Your task to perform on an android device: open chrome privacy settings Image 0: 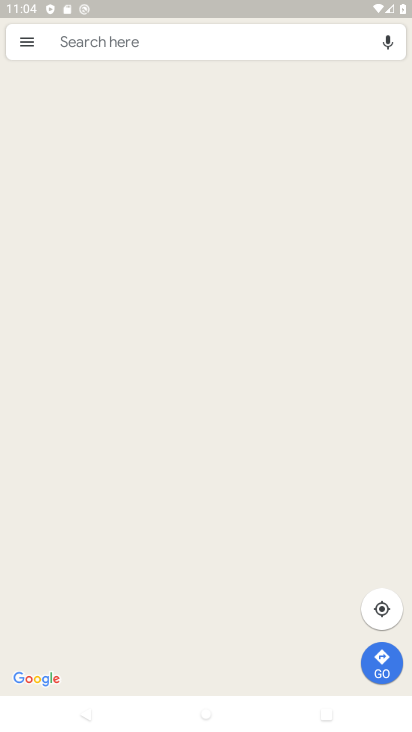
Step 0: press home button
Your task to perform on an android device: open chrome privacy settings Image 1: 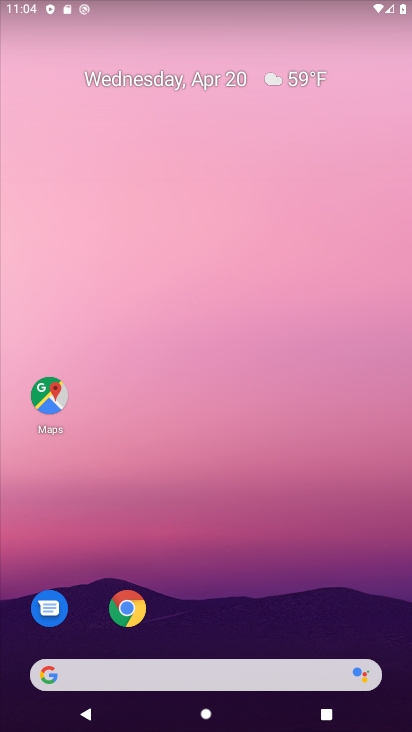
Step 1: click (128, 607)
Your task to perform on an android device: open chrome privacy settings Image 2: 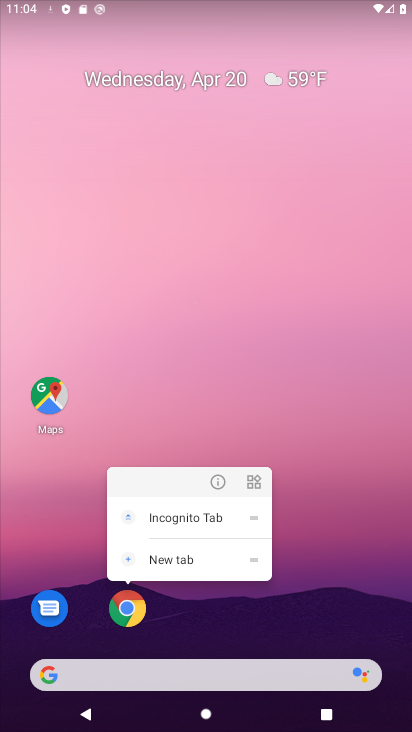
Step 2: click (128, 608)
Your task to perform on an android device: open chrome privacy settings Image 3: 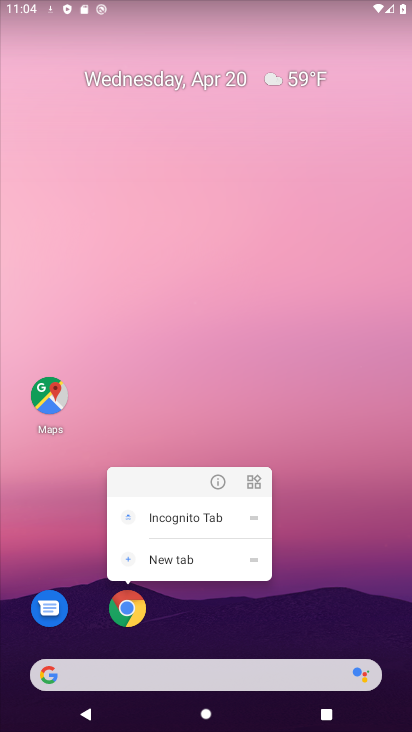
Step 3: click (128, 608)
Your task to perform on an android device: open chrome privacy settings Image 4: 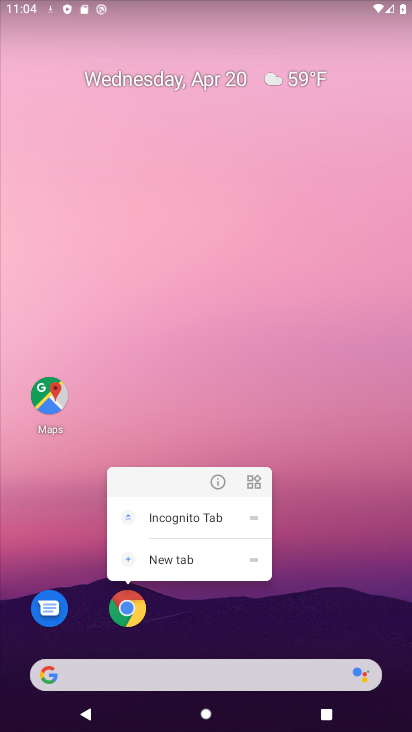
Step 4: click (207, 608)
Your task to perform on an android device: open chrome privacy settings Image 5: 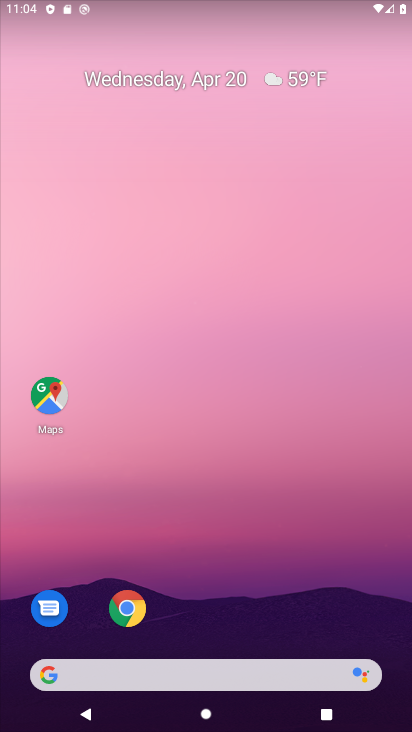
Step 5: click (128, 610)
Your task to perform on an android device: open chrome privacy settings Image 6: 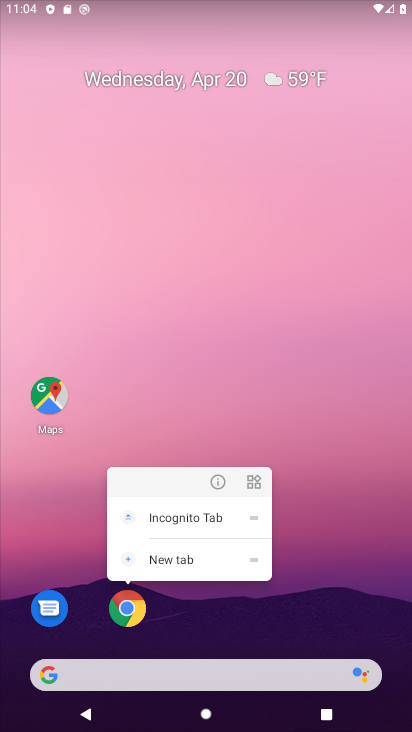
Step 6: click (219, 392)
Your task to perform on an android device: open chrome privacy settings Image 7: 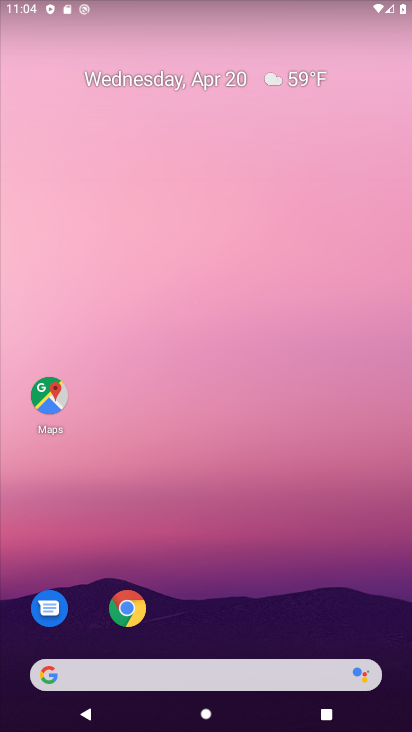
Step 7: click (127, 612)
Your task to perform on an android device: open chrome privacy settings Image 8: 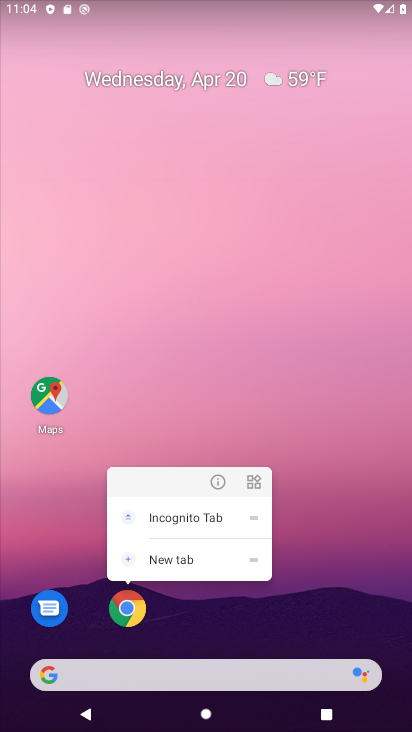
Step 8: click (270, 617)
Your task to perform on an android device: open chrome privacy settings Image 9: 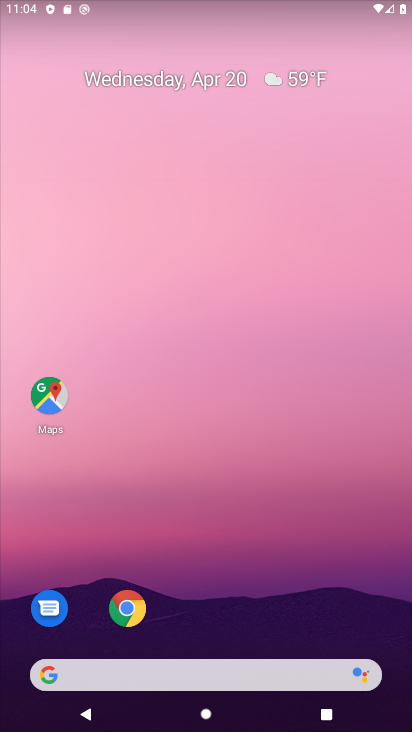
Step 9: click (128, 607)
Your task to perform on an android device: open chrome privacy settings Image 10: 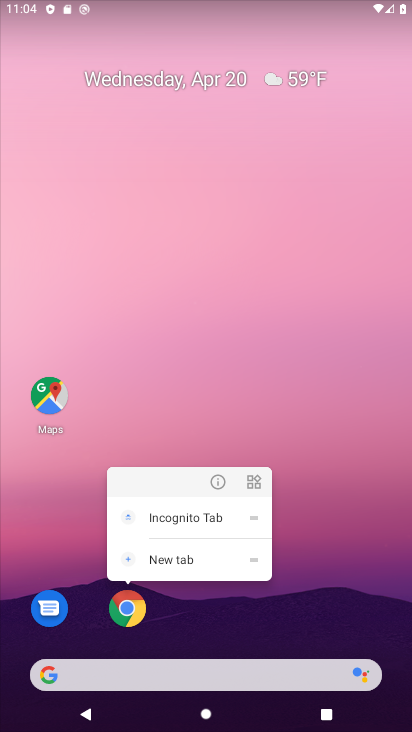
Step 10: click (182, 618)
Your task to perform on an android device: open chrome privacy settings Image 11: 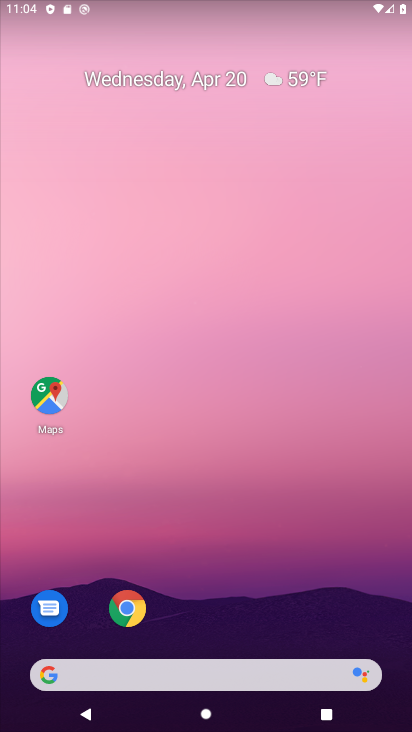
Step 11: click (130, 609)
Your task to perform on an android device: open chrome privacy settings Image 12: 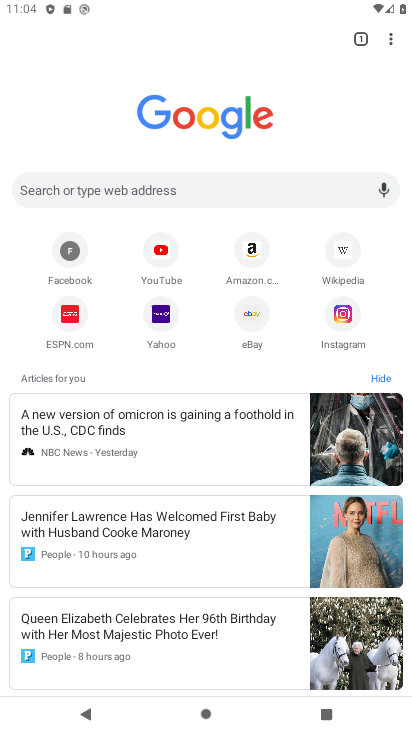
Step 12: click (388, 39)
Your task to perform on an android device: open chrome privacy settings Image 13: 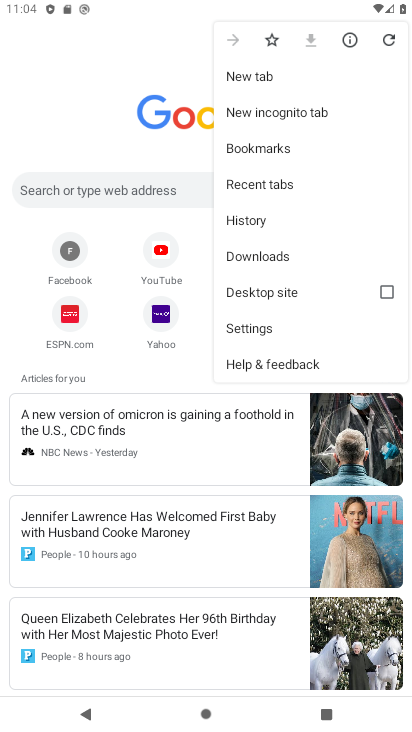
Step 13: click (265, 328)
Your task to perform on an android device: open chrome privacy settings Image 14: 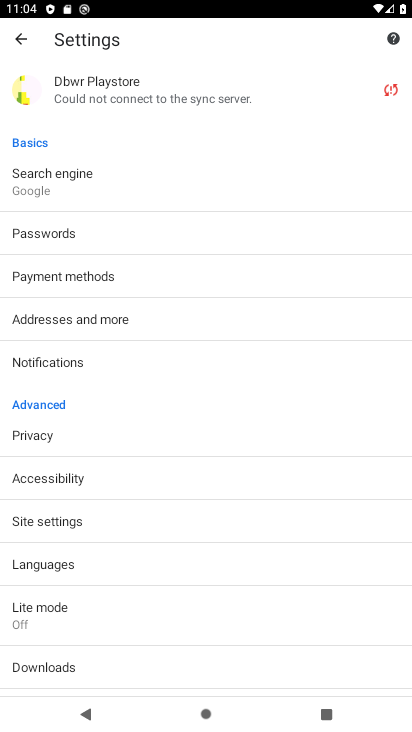
Step 14: click (65, 426)
Your task to perform on an android device: open chrome privacy settings Image 15: 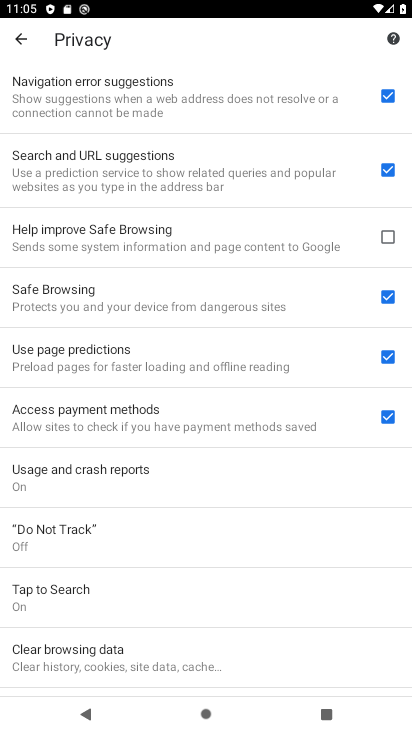
Step 15: task complete